Your task to perform on an android device: turn on data saver in the chrome app Image 0: 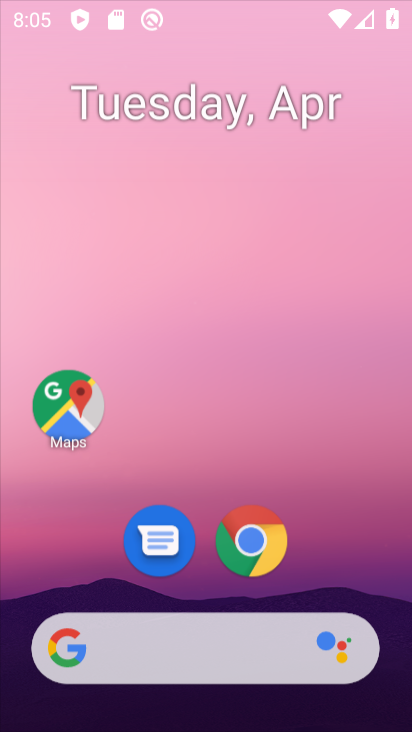
Step 0: click (336, 116)
Your task to perform on an android device: turn on data saver in the chrome app Image 1: 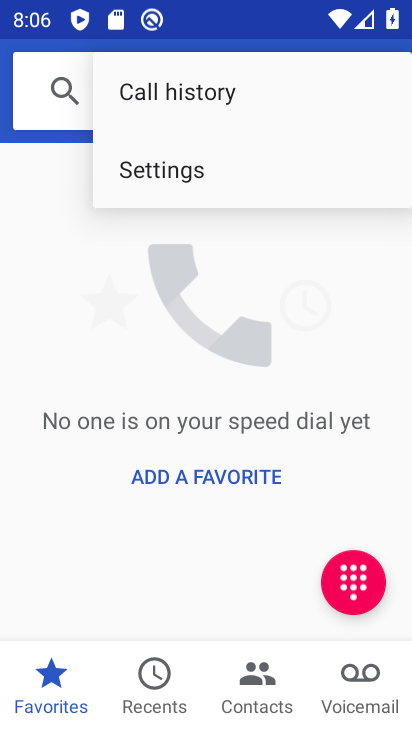
Step 1: press home button
Your task to perform on an android device: turn on data saver in the chrome app Image 2: 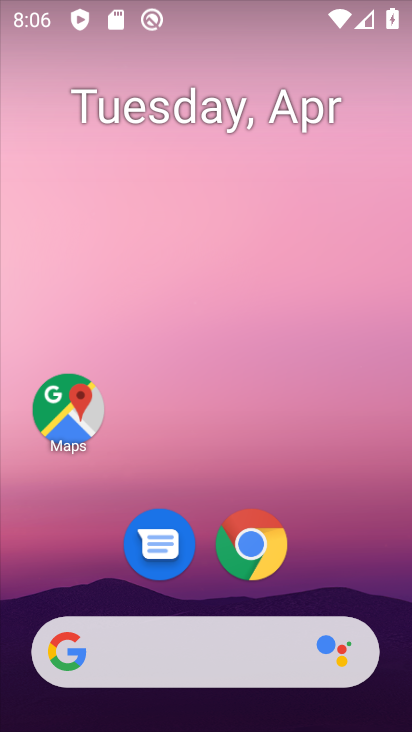
Step 2: drag from (164, 659) to (274, 234)
Your task to perform on an android device: turn on data saver in the chrome app Image 3: 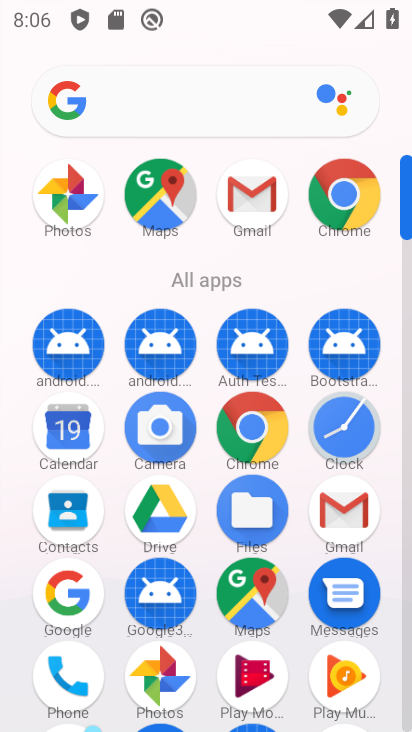
Step 3: click (334, 193)
Your task to perform on an android device: turn on data saver in the chrome app Image 4: 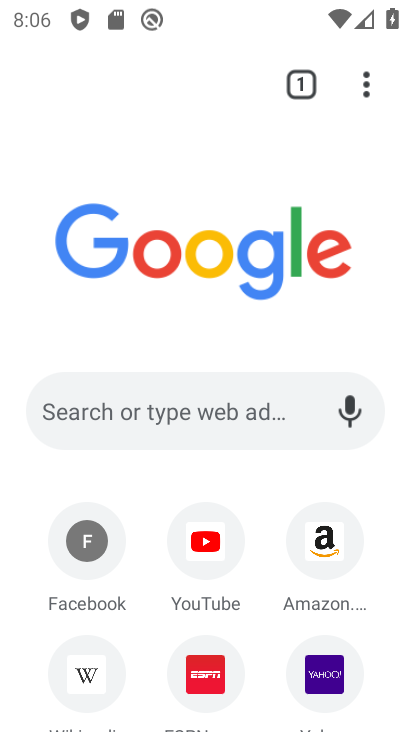
Step 4: click (367, 86)
Your task to perform on an android device: turn on data saver in the chrome app Image 5: 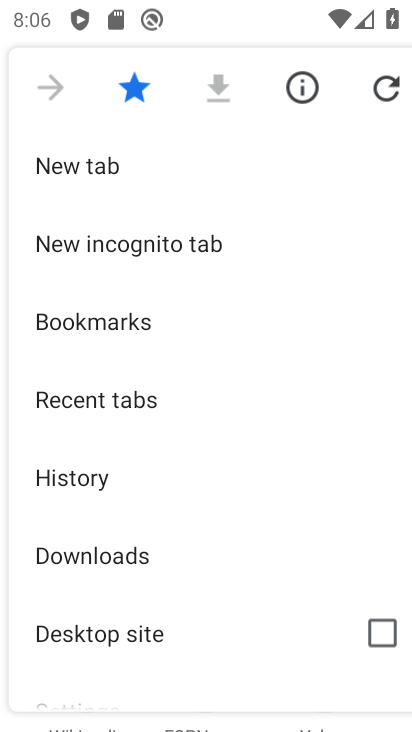
Step 5: drag from (167, 550) to (363, 122)
Your task to perform on an android device: turn on data saver in the chrome app Image 6: 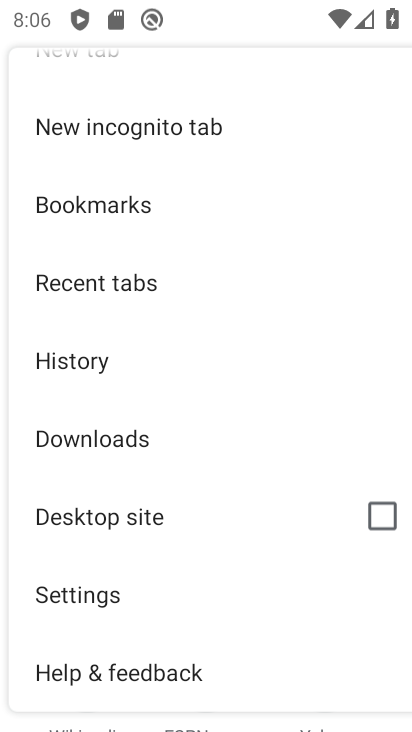
Step 6: click (97, 594)
Your task to perform on an android device: turn on data saver in the chrome app Image 7: 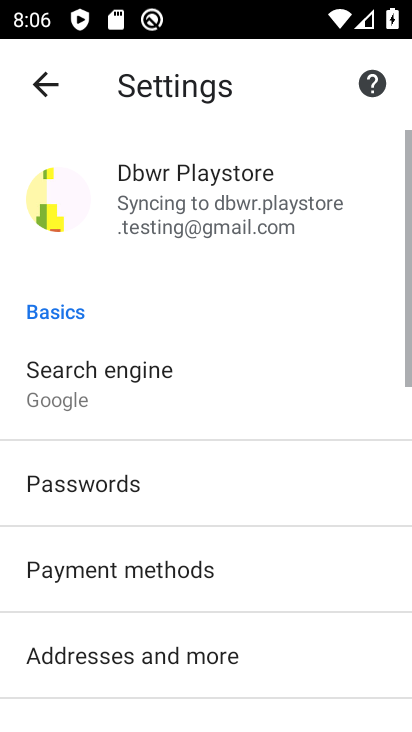
Step 7: drag from (156, 615) to (295, 244)
Your task to perform on an android device: turn on data saver in the chrome app Image 8: 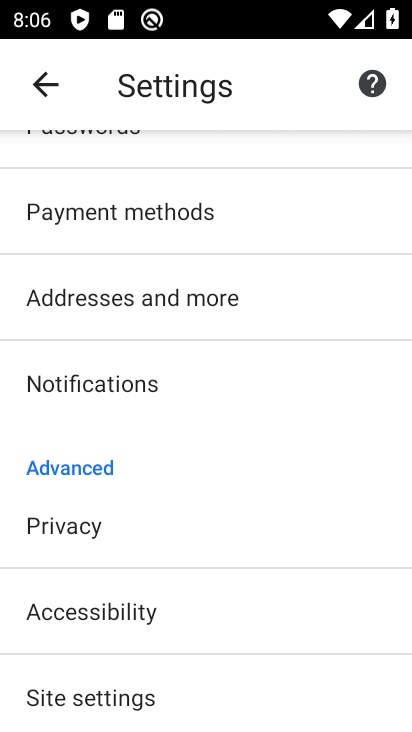
Step 8: drag from (146, 662) to (316, 233)
Your task to perform on an android device: turn on data saver in the chrome app Image 9: 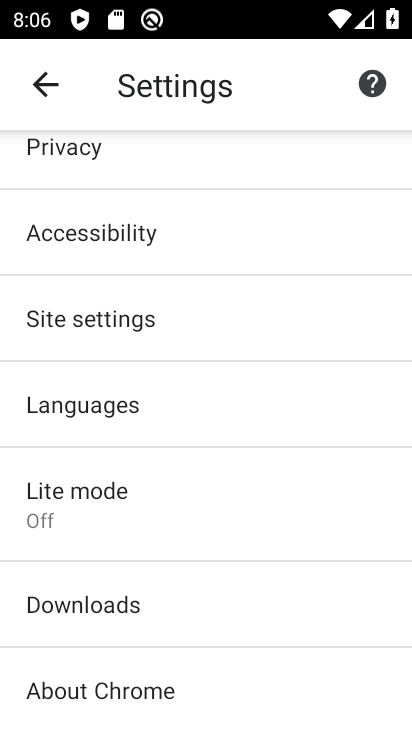
Step 9: click (87, 496)
Your task to perform on an android device: turn on data saver in the chrome app Image 10: 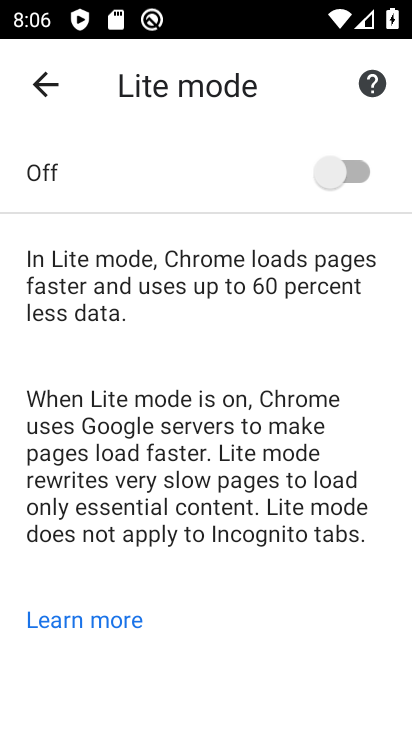
Step 10: click (356, 172)
Your task to perform on an android device: turn on data saver in the chrome app Image 11: 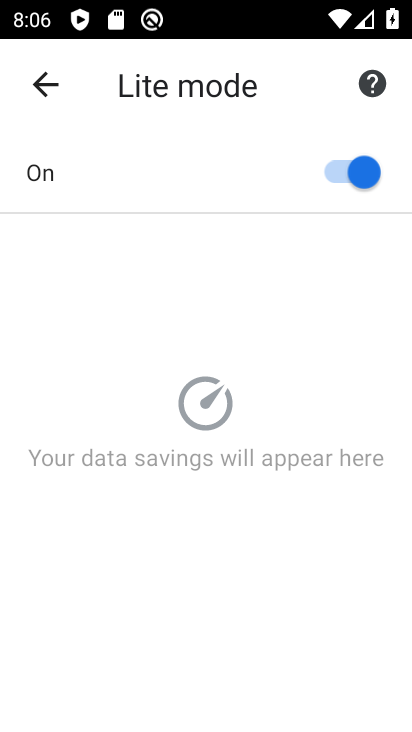
Step 11: task complete